Your task to perform on an android device: turn off notifications settings in the gmail app Image 0: 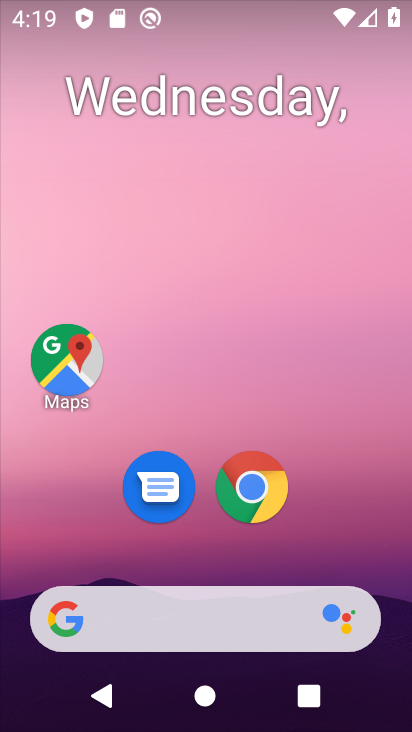
Step 0: press home button
Your task to perform on an android device: turn off notifications settings in the gmail app Image 1: 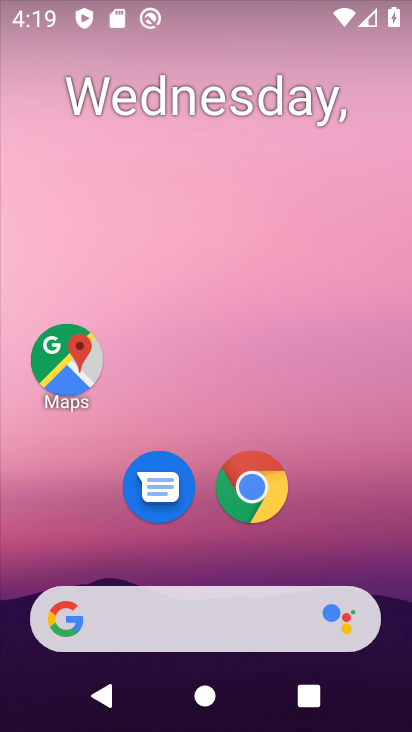
Step 1: drag from (210, 561) to (261, 83)
Your task to perform on an android device: turn off notifications settings in the gmail app Image 2: 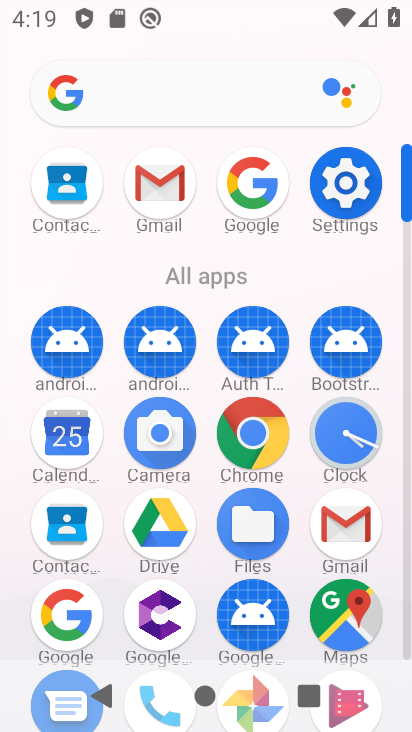
Step 2: click (157, 183)
Your task to perform on an android device: turn off notifications settings in the gmail app Image 3: 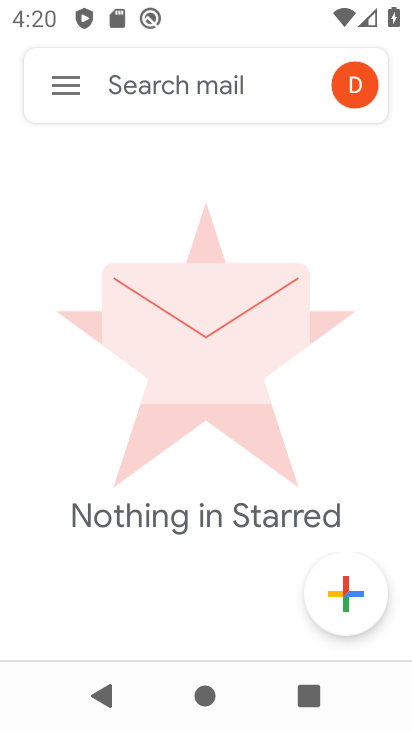
Step 3: click (61, 89)
Your task to perform on an android device: turn off notifications settings in the gmail app Image 4: 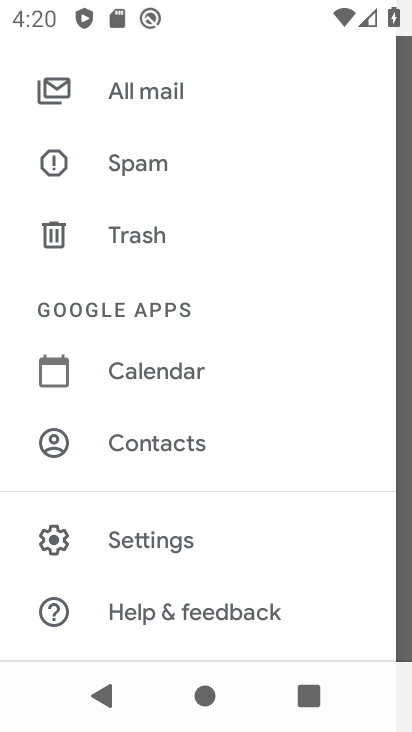
Step 4: click (89, 536)
Your task to perform on an android device: turn off notifications settings in the gmail app Image 5: 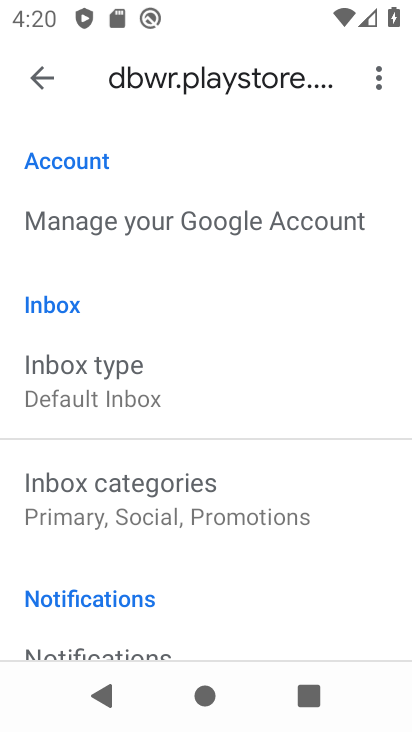
Step 5: click (178, 384)
Your task to perform on an android device: turn off notifications settings in the gmail app Image 6: 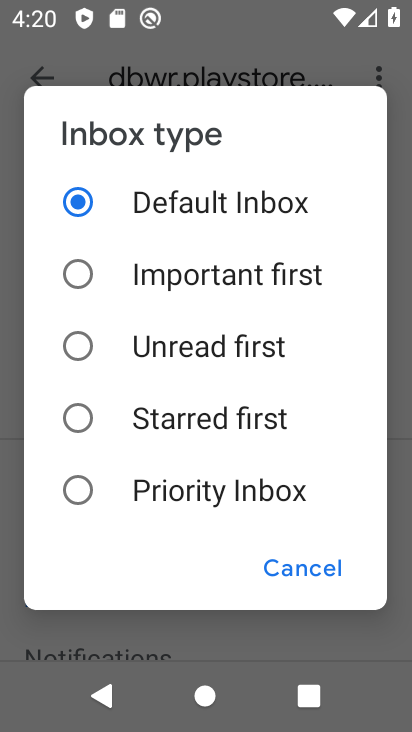
Step 6: click (308, 557)
Your task to perform on an android device: turn off notifications settings in the gmail app Image 7: 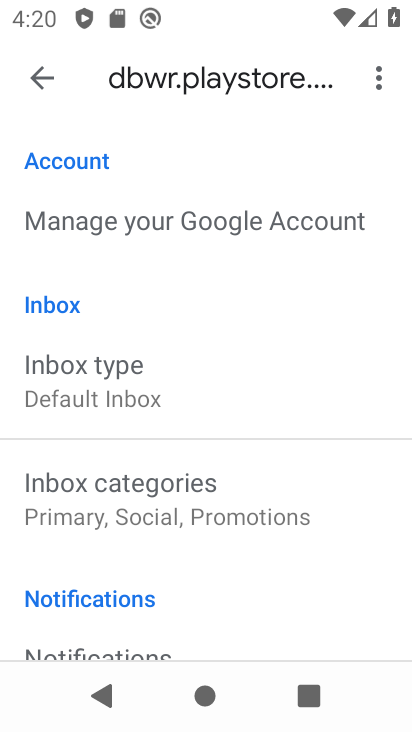
Step 7: click (44, 82)
Your task to perform on an android device: turn off notifications settings in the gmail app Image 8: 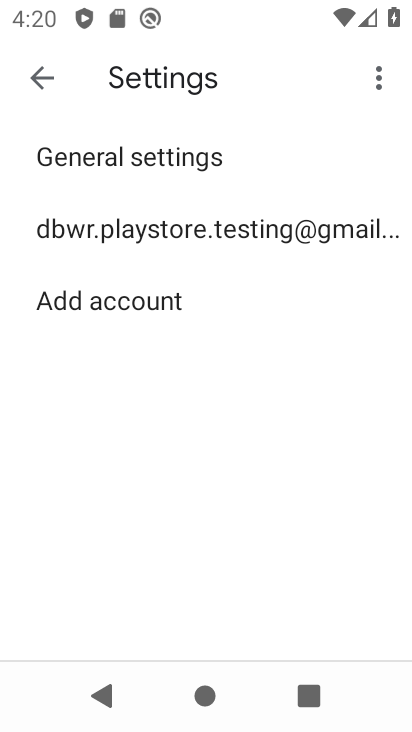
Step 8: click (103, 158)
Your task to perform on an android device: turn off notifications settings in the gmail app Image 9: 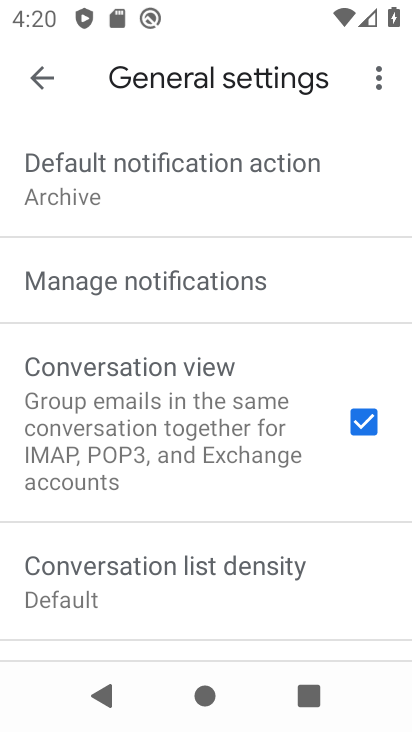
Step 9: click (217, 288)
Your task to perform on an android device: turn off notifications settings in the gmail app Image 10: 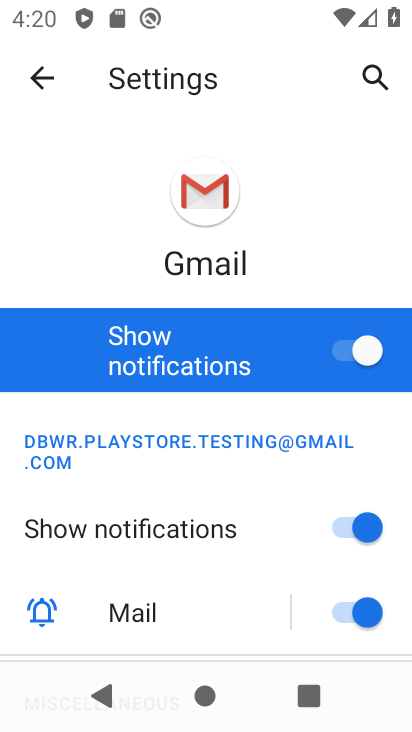
Step 10: click (346, 343)
Your task to perform on an android device: turn off notifications settings in the gmail app Image 11: 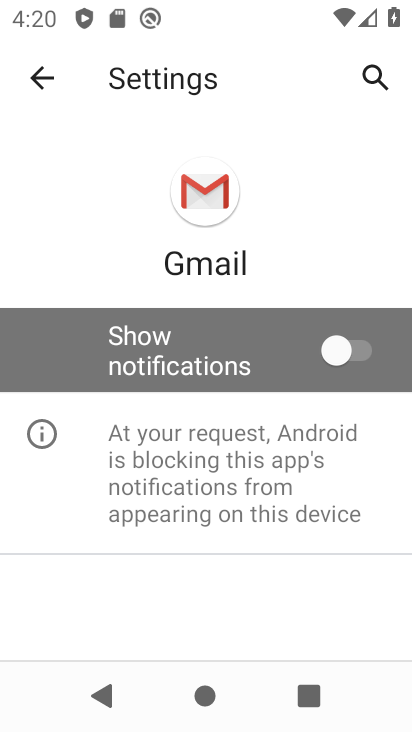
Step 11: task complete